Your task to perform on an android device: turn on showing notifications on the lock screen Image 0: 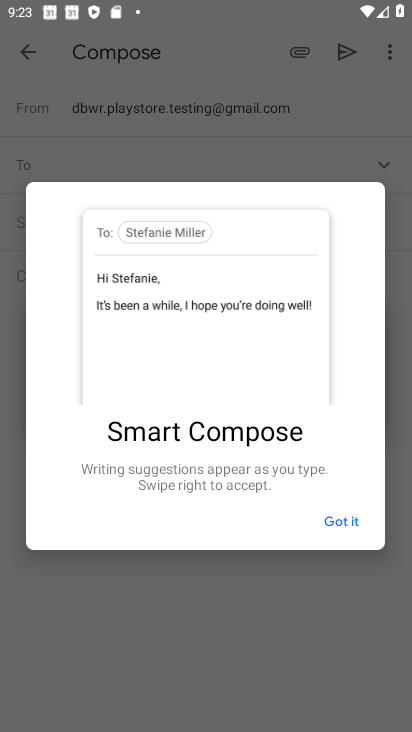
Step 0: press back button
Your task to perform on an android device: turn on showing notifications on the lock screen Image 1: 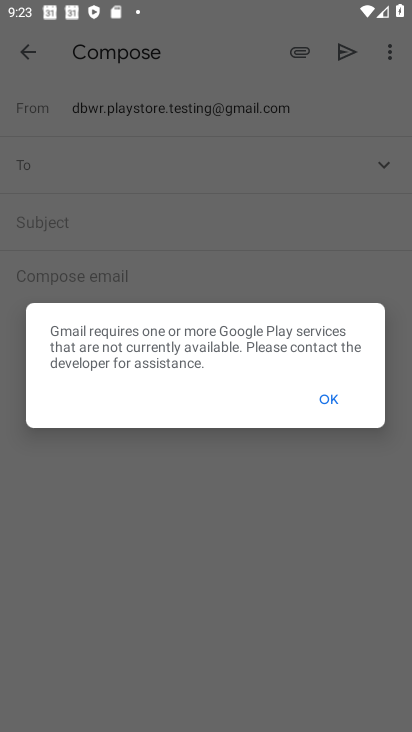
Step 1: press back button
Your task to perform on an android device: turn on showing notifications on the lock screen Image 2: 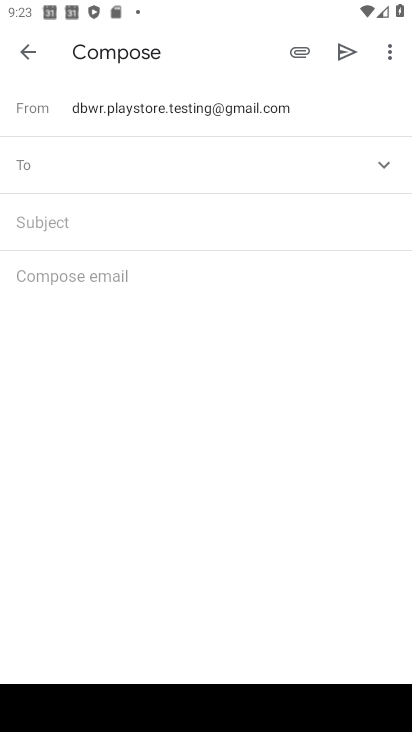
Step 2: press home button
Your task to perform on an android device: turn on showing notifications on the lock screen Image 3: 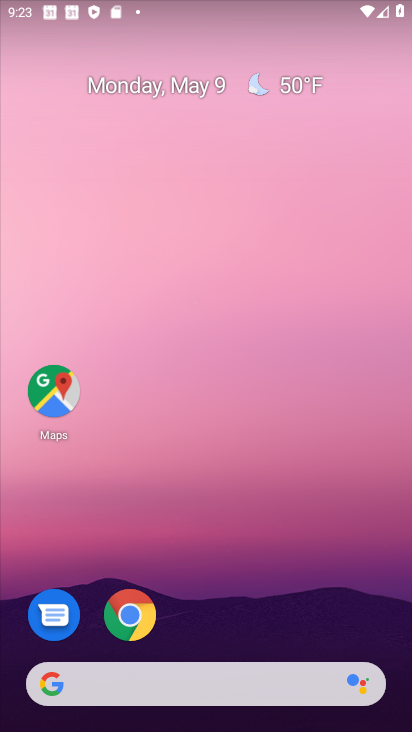
Step 3: drag from (260, 555) to (162, 0)
Your task to perform on an android device: turn on showing notifications on the lock screen Image 4: 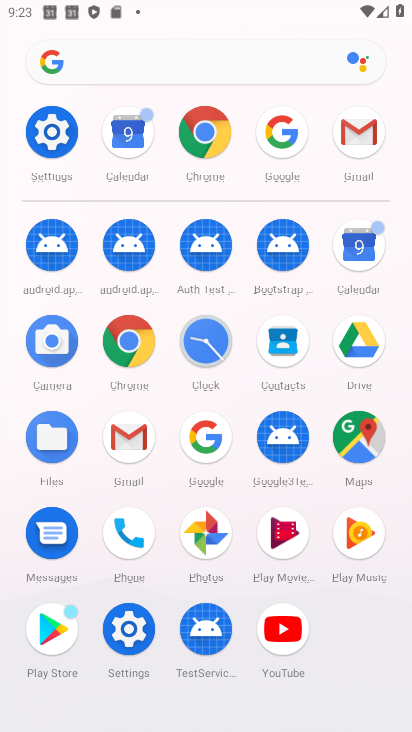
Step 4: click (52, 130)
Your task to perform on an android device: turn on showing notifications on the lock screen Image 5: 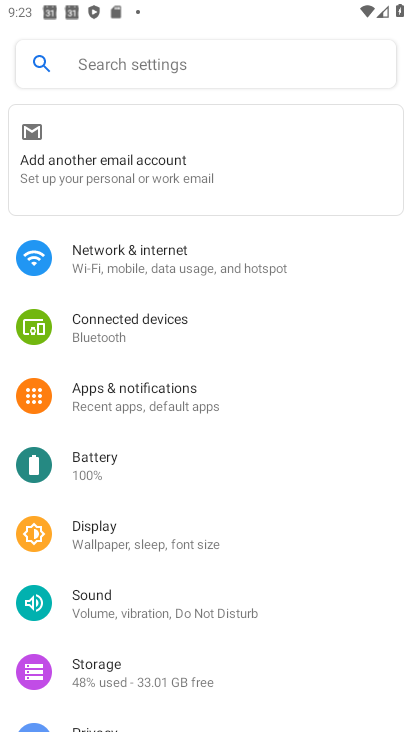
Step 5: drag from (330, 611) to (287, 121)
Your task to perform on an android device: turn on showing notifications on the lock screen Image 6: 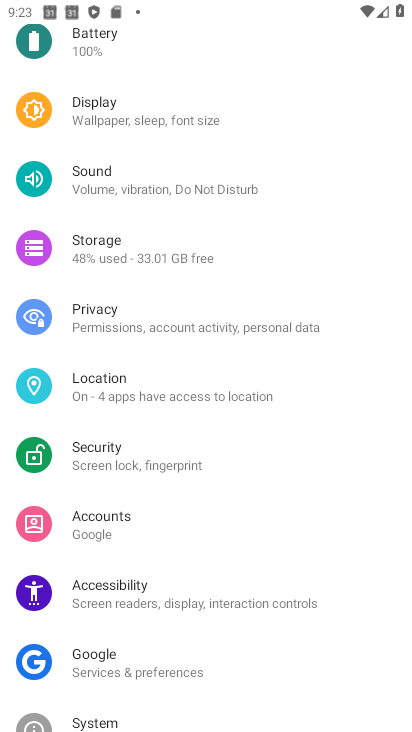
Step 6: drag from (250, 574) to (261, 82)
Your task to perform on an android device: turn on showing notifications on the lock screen Image 7: 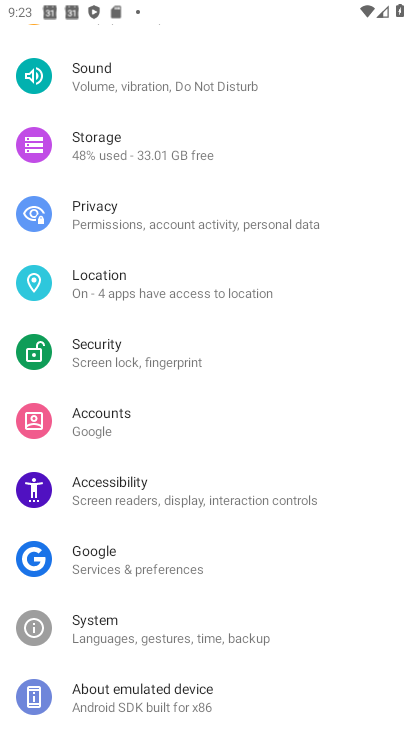
Step 7: drag from (234, 303) to (239, 669)
Your task to perform on an android device: turn on showing notifications on the lock screen Image 8: 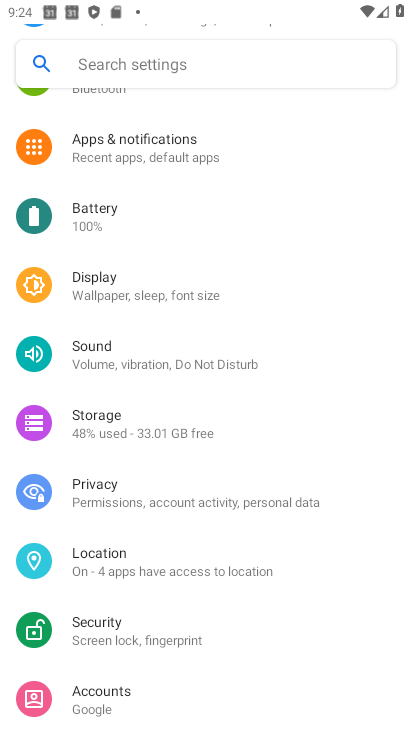
Step 8: drag from (239, 187) to (239, 523)
Your task to perform on an android device: turn on showing notifications on the lock screen Image 9: 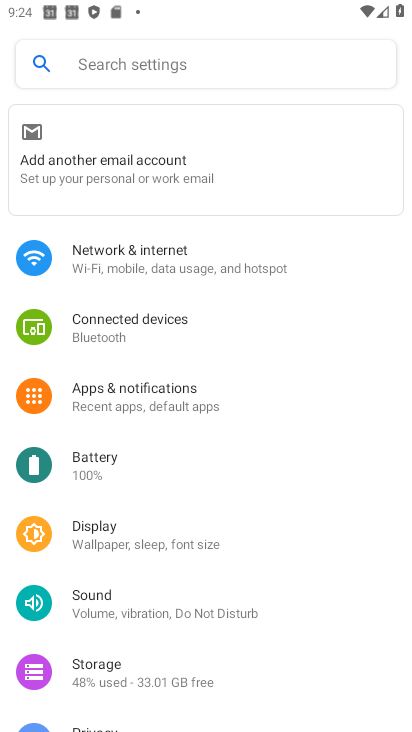
Step 9: click (146, 399)
Your task to perform on an android device: turn on showing notifications on the lock screen Image 10: 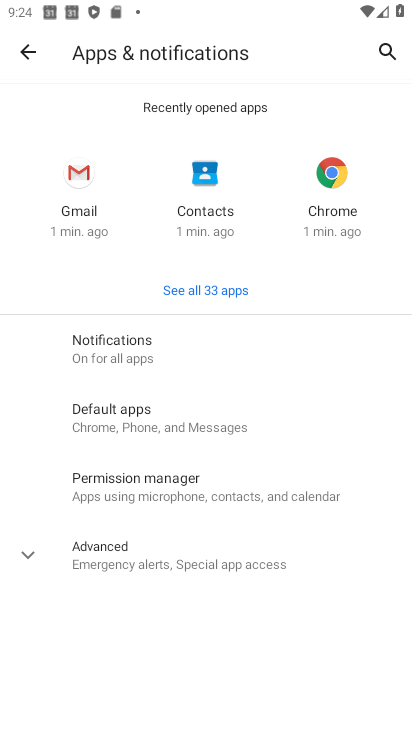
Step 10: click (173, 355)
Your task to perform on an android device: turn on showing notifications on the lock screen Image 11: 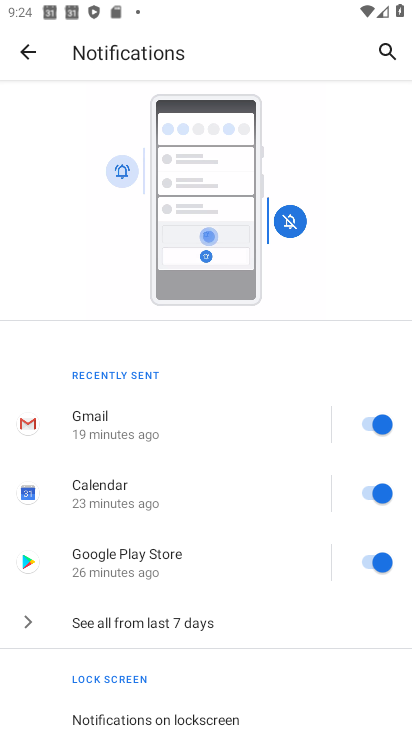
Step 11: drag from (179, 706) to (229, 345)
Your task to perform on an android device: turn on showing notifications on the lock screen Image 12: 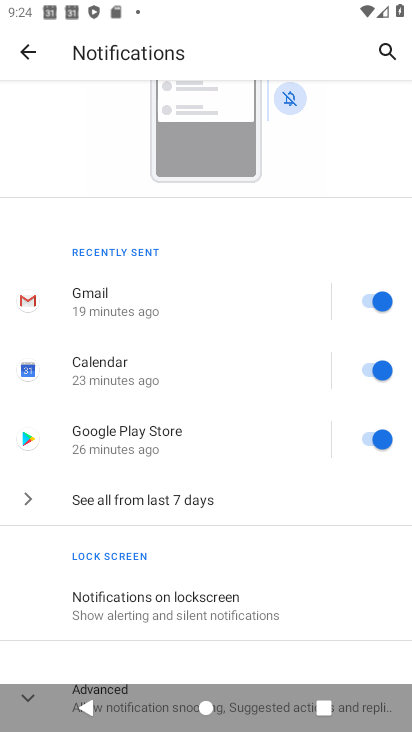
Step 12: click (124, 620)
Your task to perform on an android device: turn on showing notifications on the lock screen Image 13: 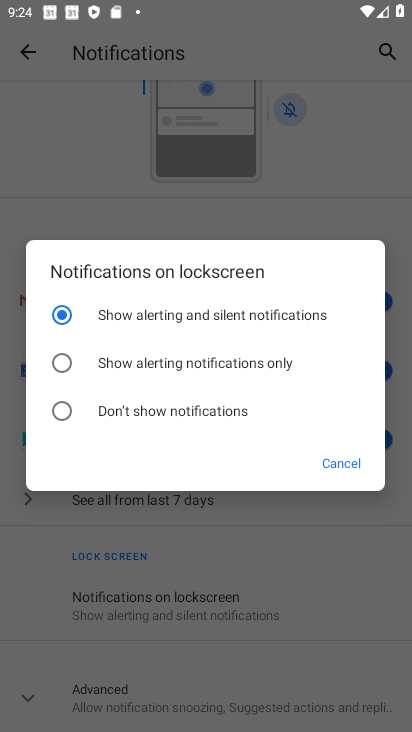
Step 13: click (126, 316)
Your task to perform on an android device: turn on showing notifications on the lock screen Image 14: 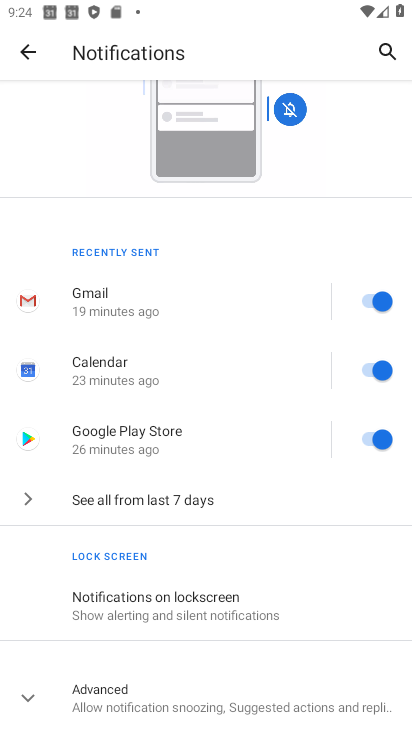
Step 14: task complete